Your task to perform on an android device: Do I have any events today? Image 0: 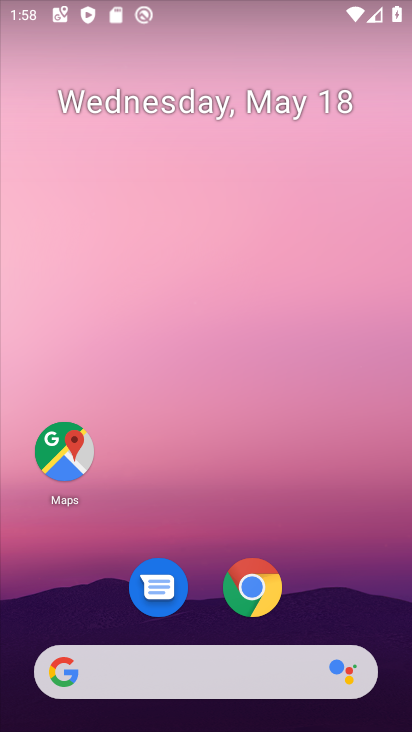
Step 0: drag from (335, 633) to (285, 18)
Your task to perform on an android device: Do I have any events today? Image 1: 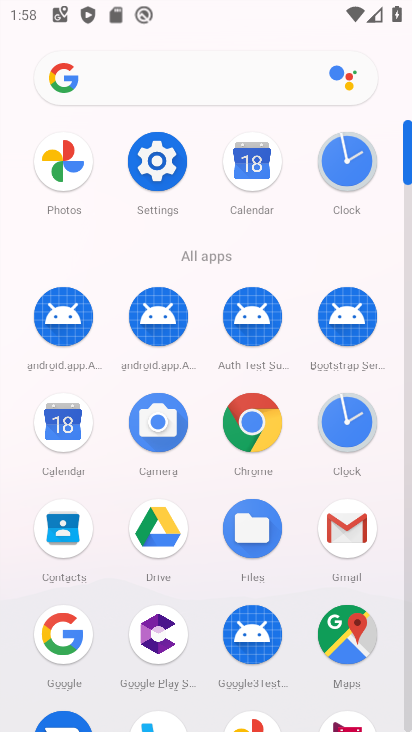
Step 1: click (249, 167)
Your task to perform on an android device: Do I have any events today? Image 2: 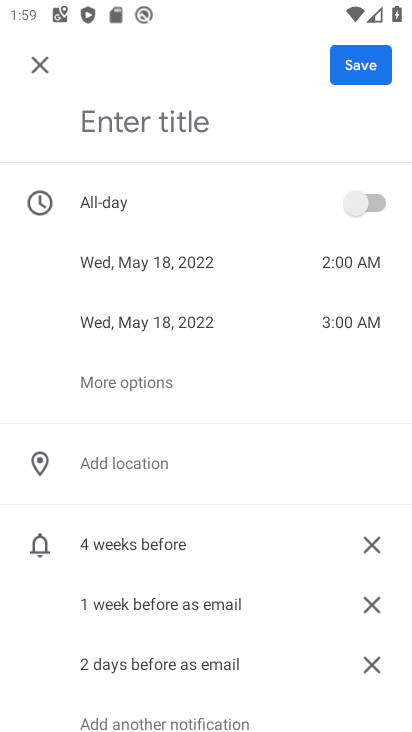
Step 2: task complete